Your task to perform on an android device: turn on notifications settings in the gmail app Image 0: 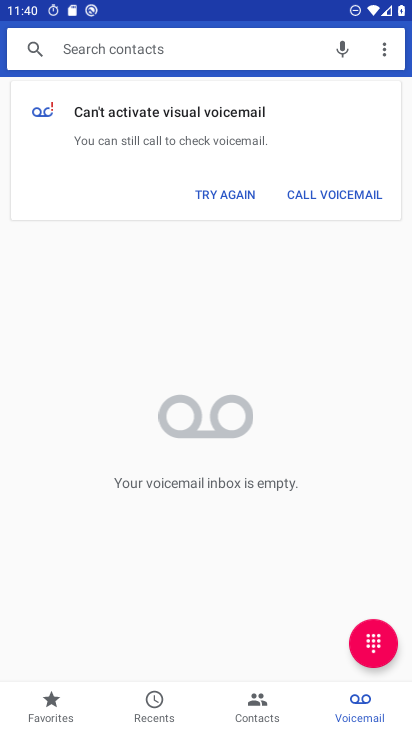
Step 0: press home button
Your task to perform on an android device: turn on notifications settings in the gmail app Image 1: 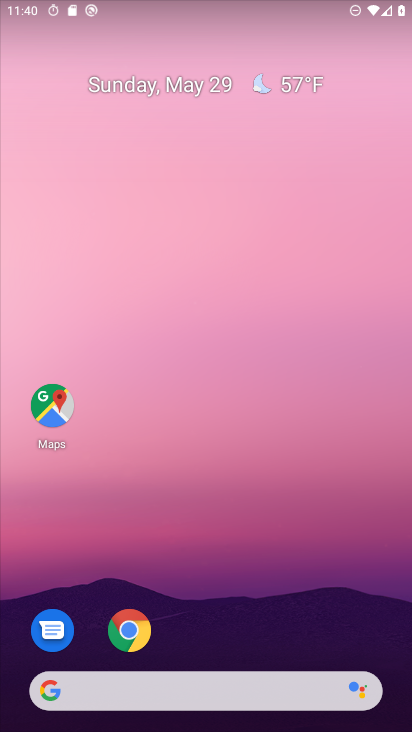
Step 1: drag from (256, 646) to (202, 175)
Your task to perform on an android device: turn on notifications settings in the gmail app Image 2: 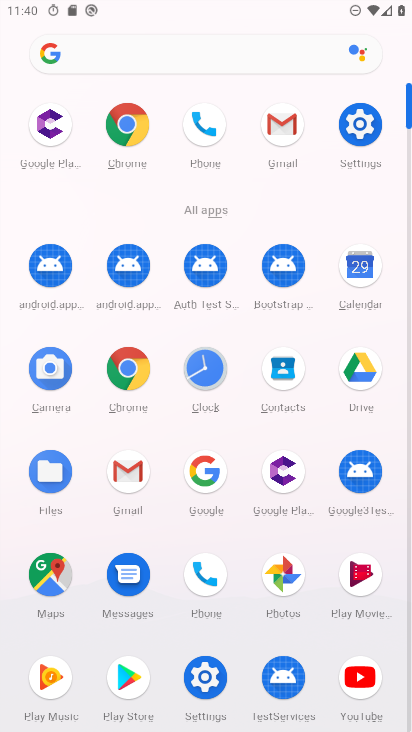
Step 2: click (137, 464)
Your task to perform on an android device: turn on notifications settings in the gmail app Image 3: 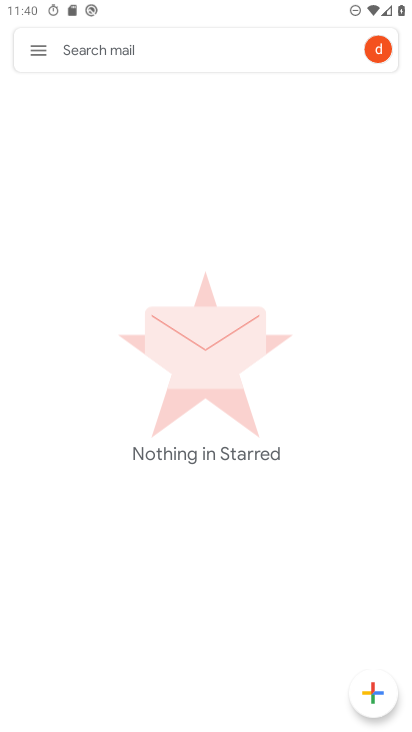
Step 3: click (20, 47)
Your task to perform on an android device: turn on notifications settings in the gmail app Image 4: 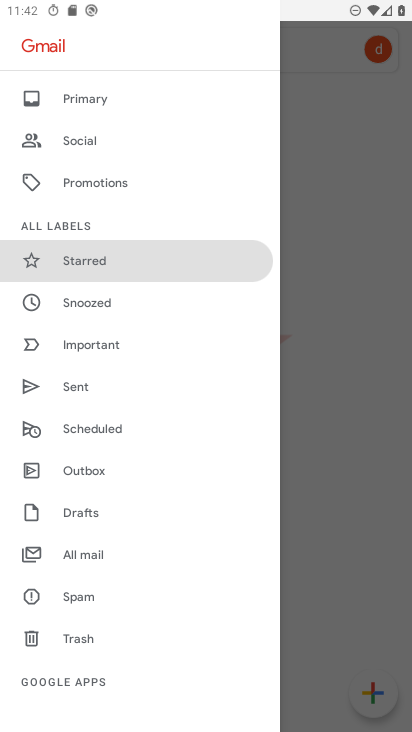
Step 4: drag from (57, 606) to (119, 341)
Your task to perform on an android device: turn on notifications settings in the gmail app Image 5: 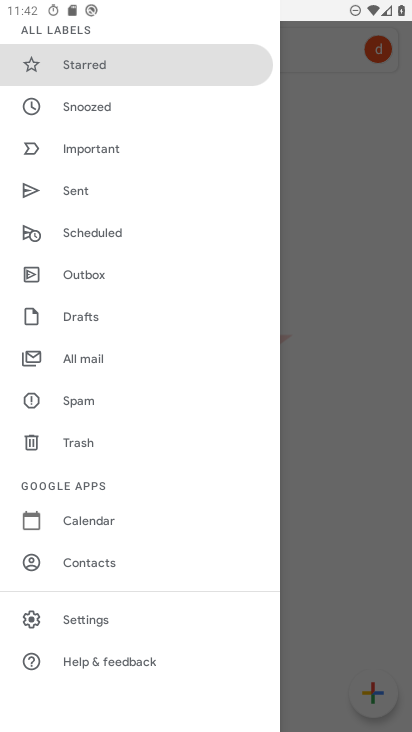
Step 5: click (112, 611)
Your task to perform on an android device: turn on notifications settings in the gmail app Image 6: 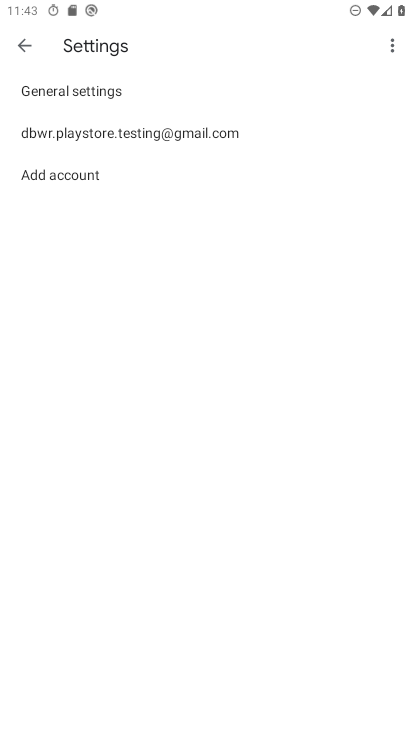
Step 6: click (147, 141)
Your task to perform on an android device: turn on notifications settings in the gmail app Image 7: 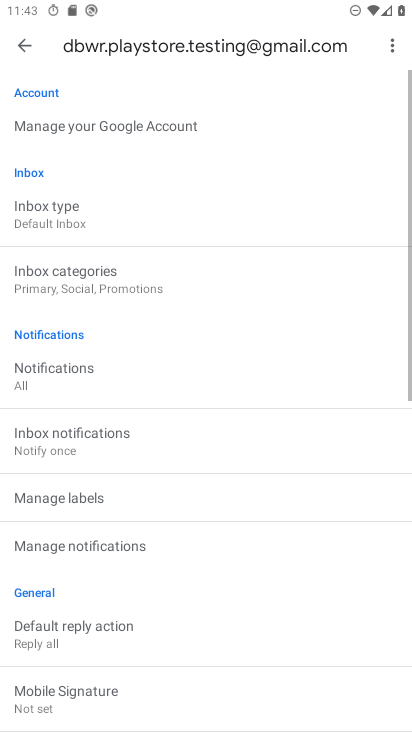
Step 7: click (86, 376)
Your task to perform on an android device: turn on notifications settings in the gmail app Image 8: 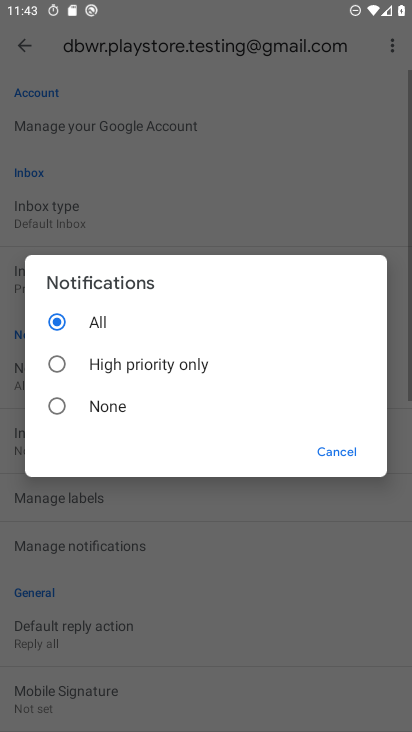
Step 8: task complete